Your task to perform on an android device: Open Youtube and go to the subscriptions tab Image 0: 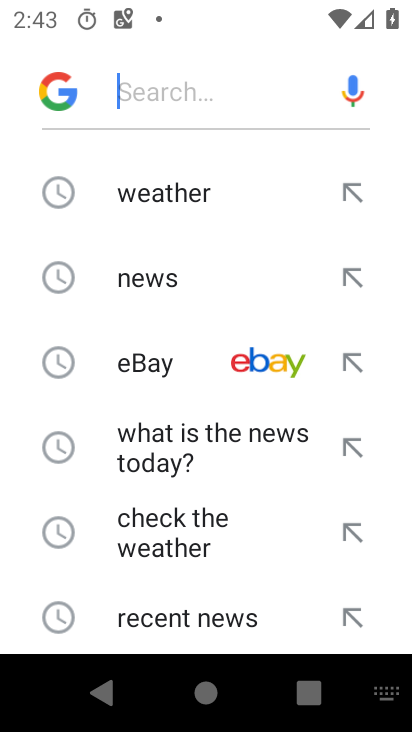
Step 0: press home button
Your task to perform on an android device: Open Youtube and go to the subscriptions tab Image 1: 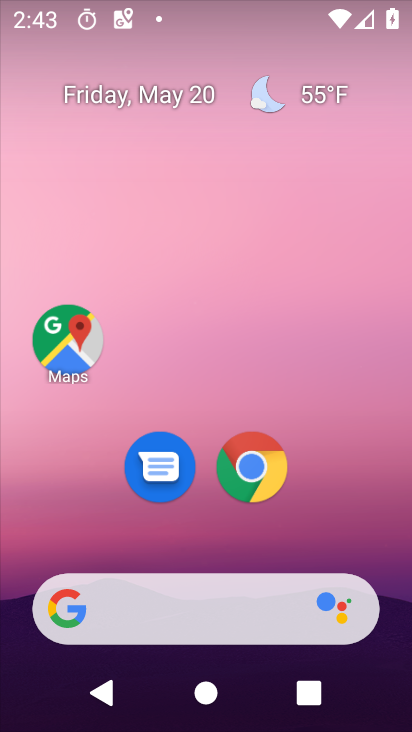
Step 1: drag from (282, 534) to (276, 65)
Your task to perform on an android device: Open Youtube and go to the subscriptions tab Image 2: 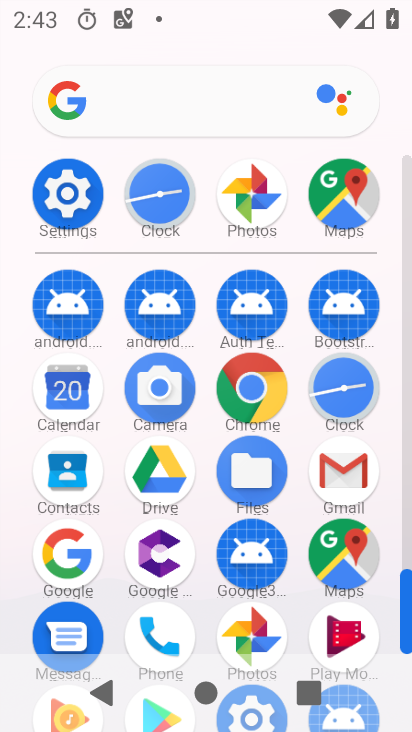
Step 2: drag from (200, 442) to (201, 143)
Your task to perform on an android device: Open Youtube and go to the subscriptions tab Image 3: 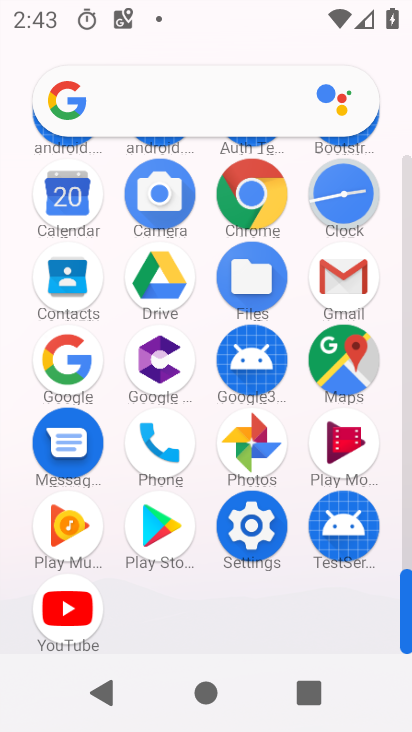
Step 3: click (65, 622)
Your task to perform on an android device: Open Youtube and go to the subscriptions tab Image 4: 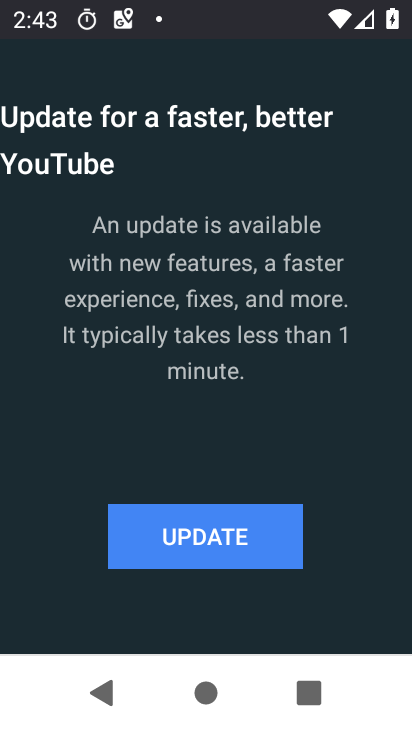
Step 4: click (206, 536)
Your task to perform on an android device: Open Youtube and go to the subscriptions tab Image 5: 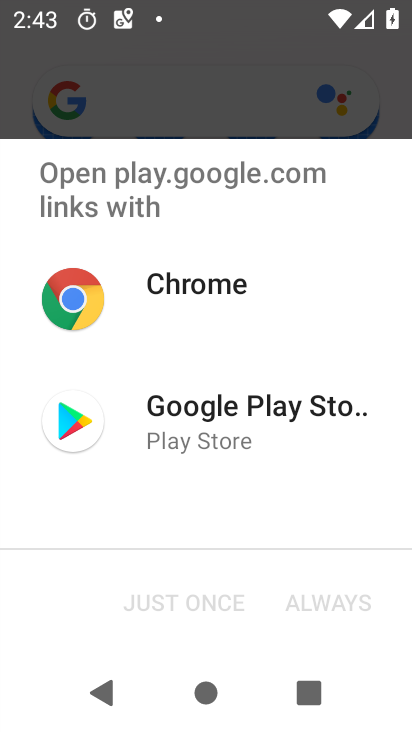
Step 5: click (150, 393)
Your task to perform on an android device: Open Youtube and go to the subscriptions tab Image 6: 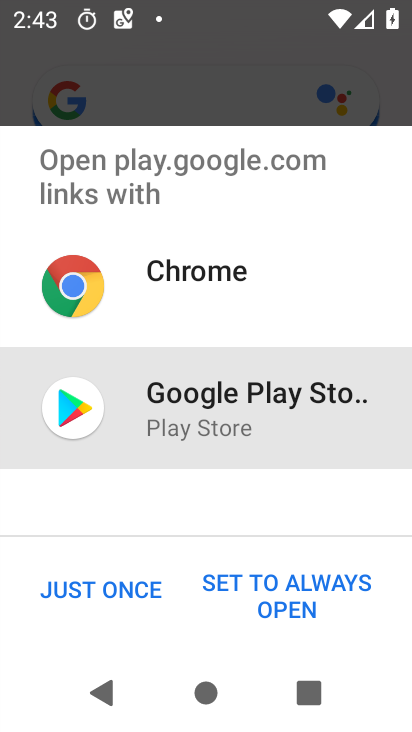
Step 6: click (84, 588)
Your task to perform on an android device: Open Youtube and go to the subscriptions tab Image 7: 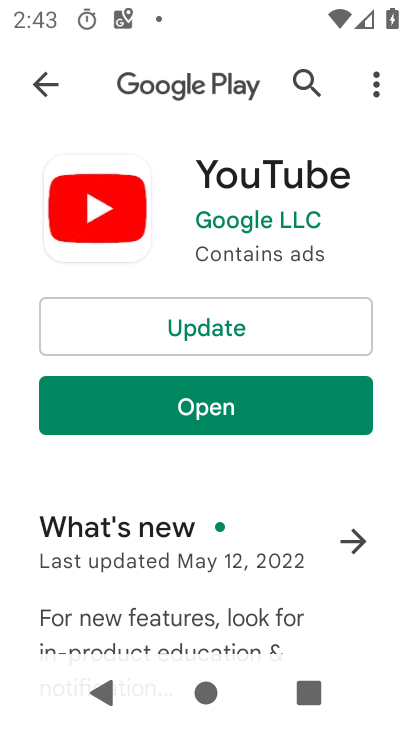
Step 7: click (175, 322)
Your task to perform on an android device: Open Youtube and go to the subscriptions tab Image 8: 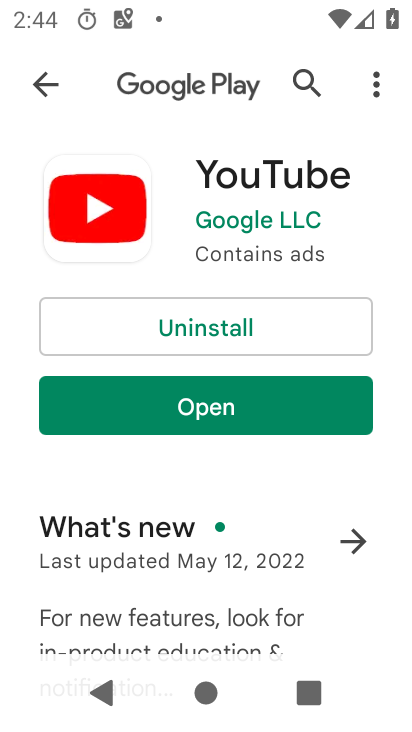
Step 8: click (235, 410)
Your task to perform on an android device: Open Youtube and go to the subscriptions tab Image 9: 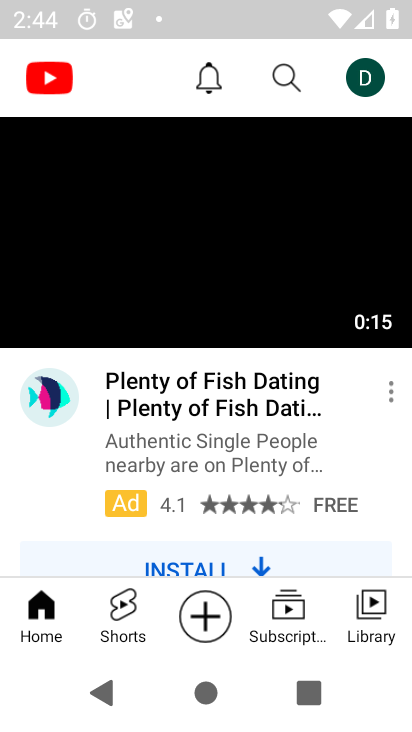
Step 9: click (290, 627)
Your task to perform on an android device: Open Youtube and go to the subscriptions tab Image 10: 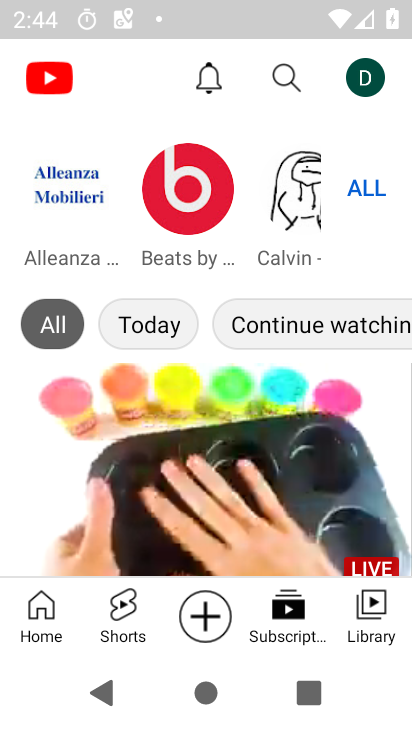
Step 10: task complete